Your task to perform on an android device: add a contact Image 0: 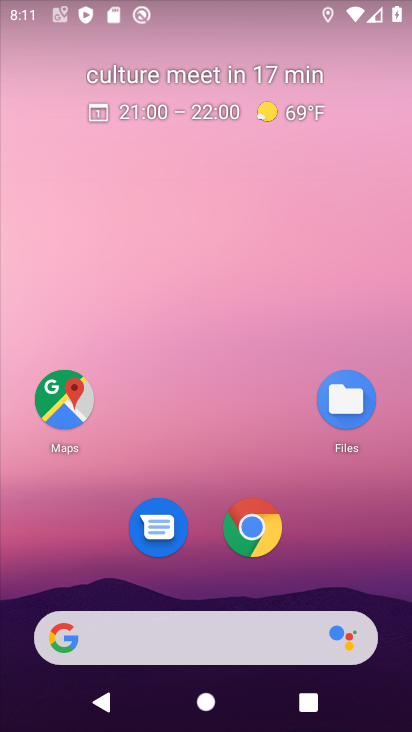
Step 0: drag from (311, 509) to (326, 111)
Your task to perform on an android device: add a contact Image 1: 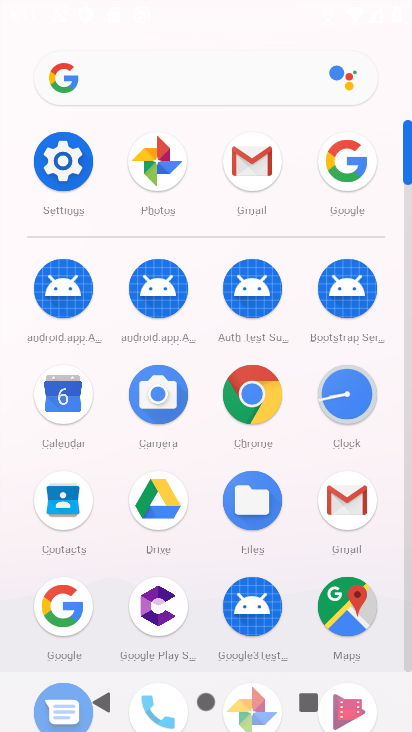
Step 1: click (70, 492)
Your task to perform on an android device: add a contact Image 2: 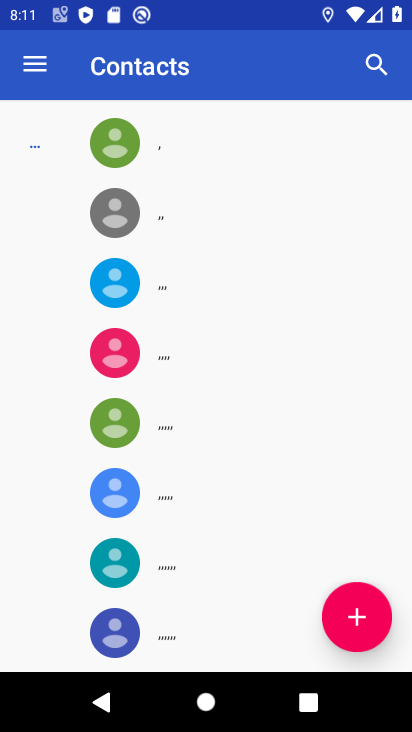
Step 2: click (365, 628)
Your task to perform on an android device: add a contact Image 3: 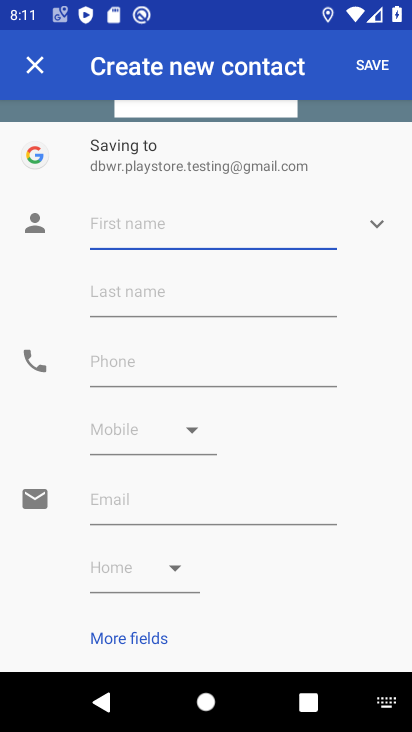
Step 3: type "ghgdtd"
Your task to perform on an android device: add a contact Image 4: 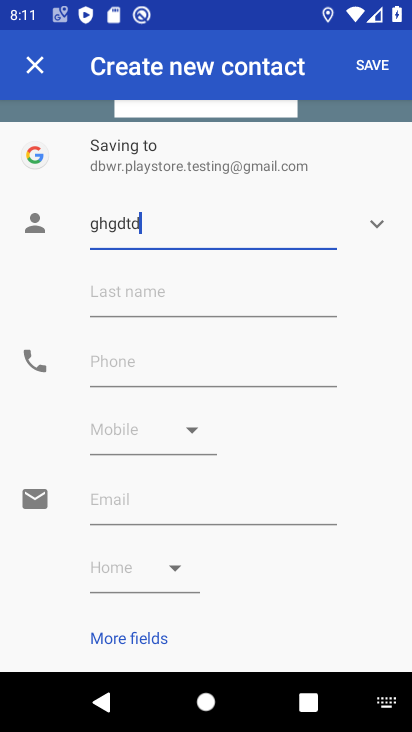
Step 4: click (362, 75)
Your task to perform on an android device: add a contact Image 5: 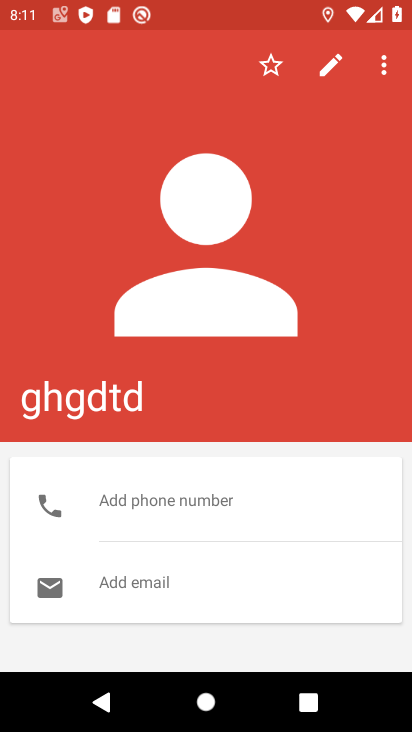
Step 5: task complete